Your task to perform on an android device: Open calendar and show me the third week of next month Image 0: 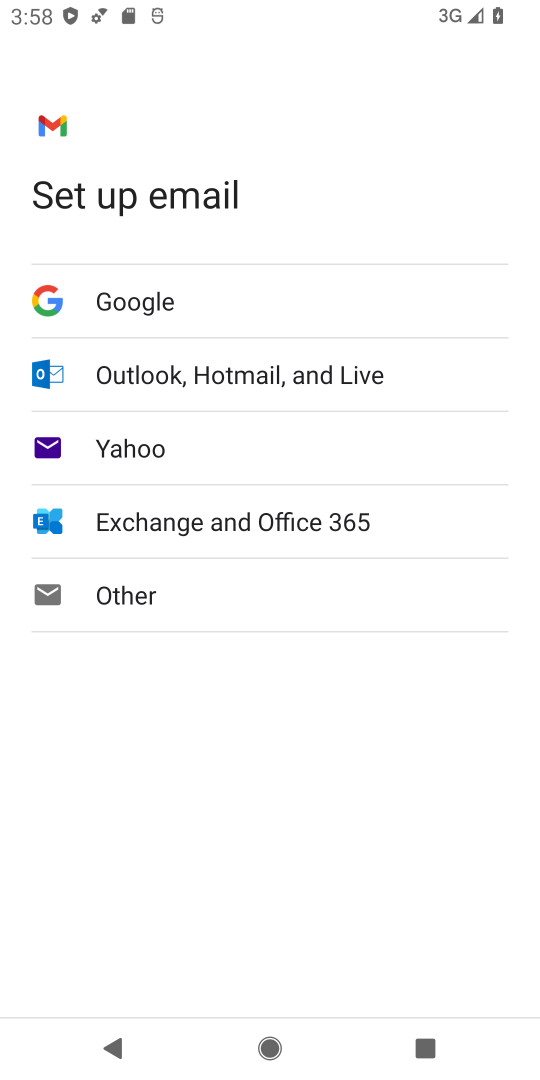
Step 0: press home button
Your task to perform on an android device: Open calendar and show me the third week of next month Image 1: 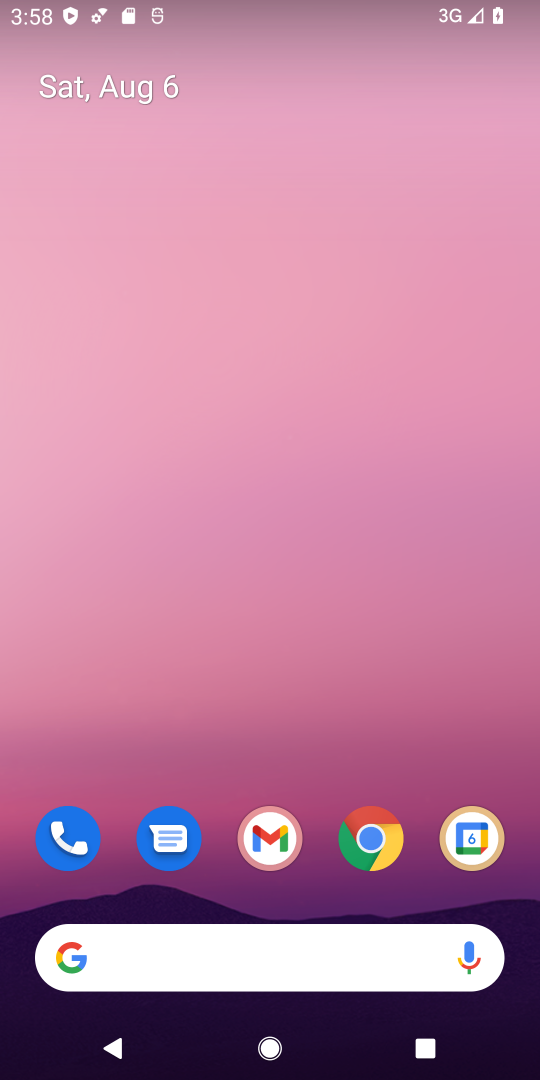
Step 1: drag from (305, 998) to (297, 23)
Your task to perform on an android device: Open calendar and show me the third week of next month Image 2: 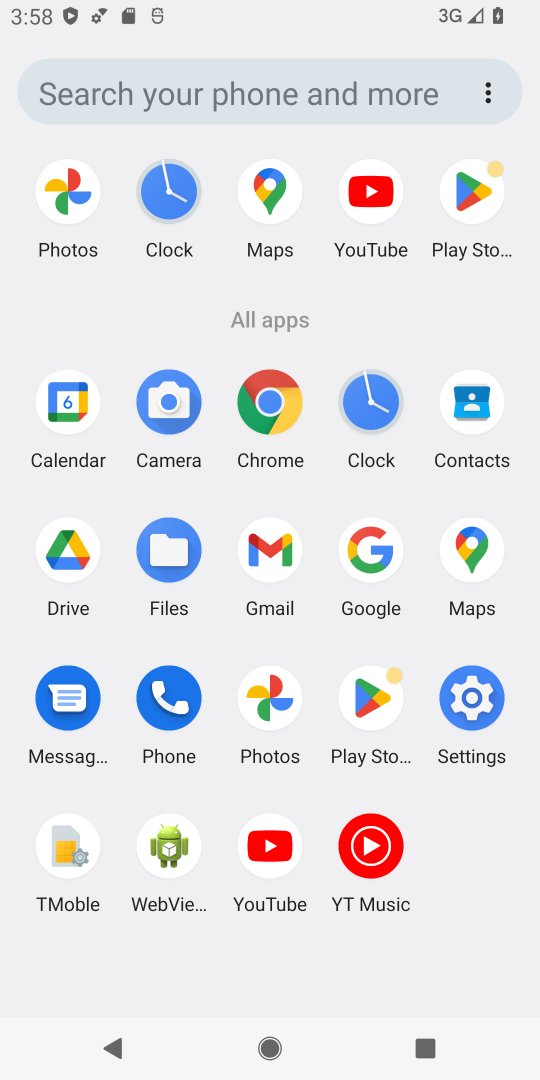
Step 2: click (77, 392)
Your task to perform on an android device: Open calendar and show me the third week of next month Image 3: 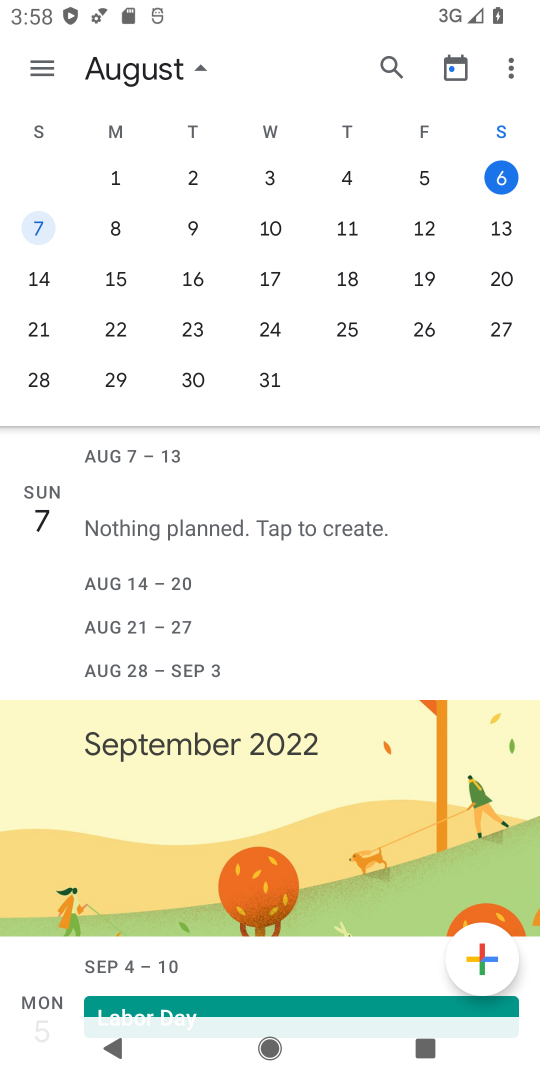
Step 3: drag from (493, 249) to (21, 300)
Your task to perform on an android device: Open calendar and show me the third week of next month Image 4: 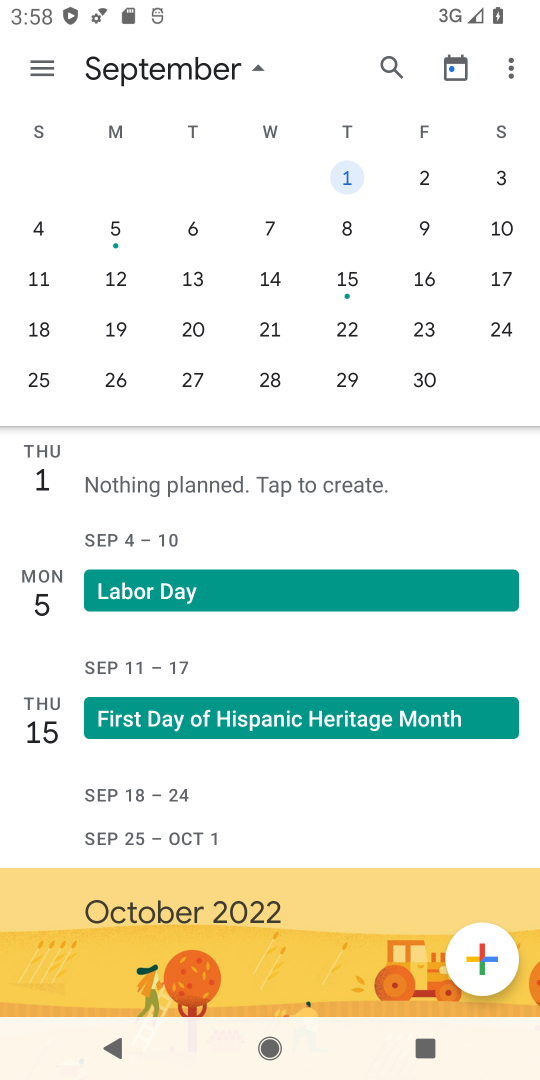
Step 4: click (262, 281)
Your task to perform on an android device: Open calendar and show me the third week of next month Image 5: 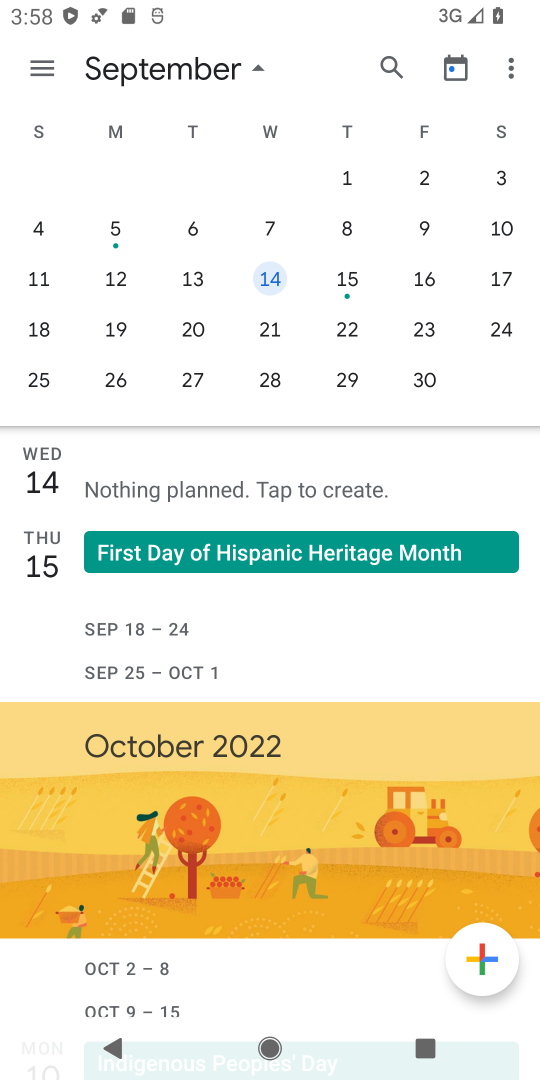
Step 5: task complete